Your task to perform on an android device: allow cookies in the chrome app Image 0: 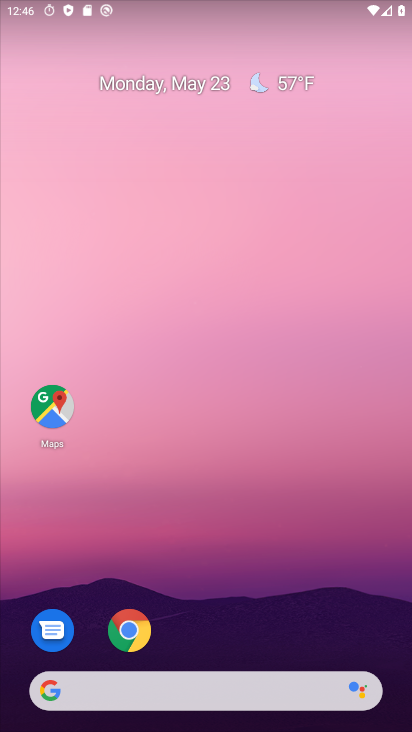
Step 0: drag from (247, 559) to (204, 13)
Your task to perform on an android device: allow cookies in the chrome app Image 1: 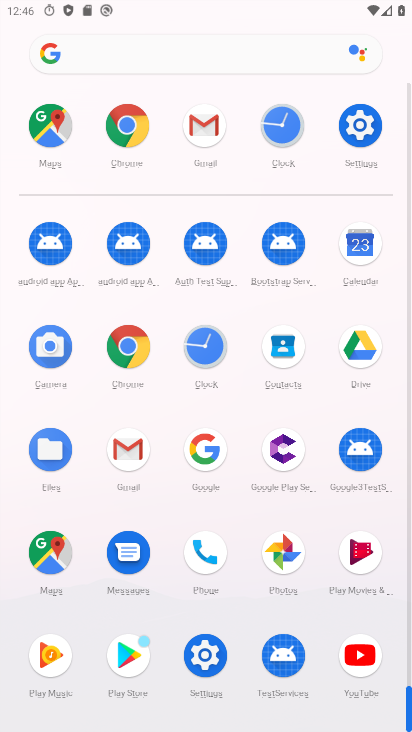
Step 1: drag from (14, 561) to (16, 240)
Your task to perform on an android device: allow cookies in the chrome app Image 2: 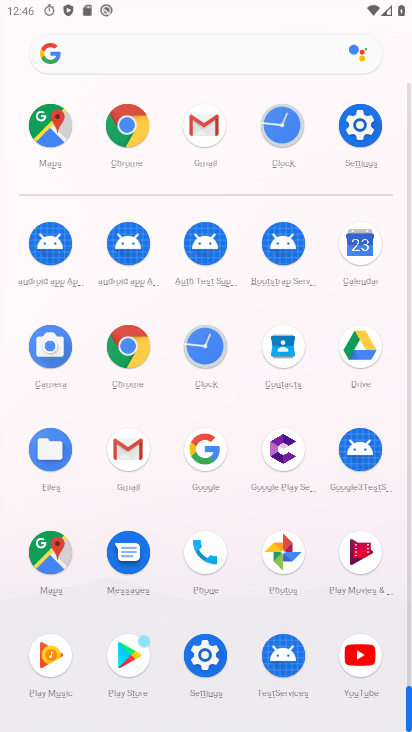
Step 2: click (122, 123)
Your task to perform on an android device: allow cookies in the chrome app Image 3: 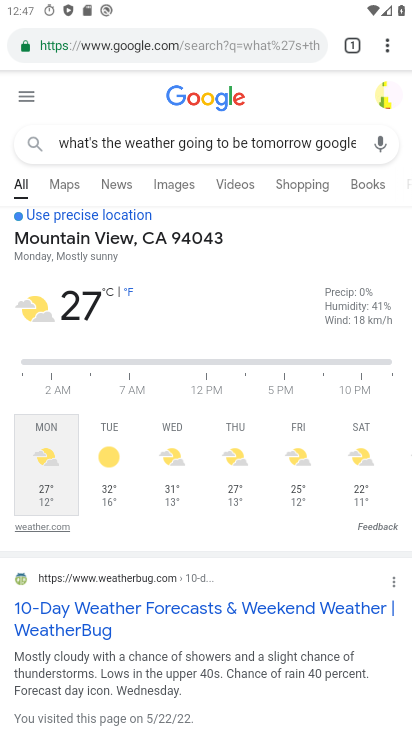
Step 3: drag from (390, 46) to (217, 502)
Your task to perform on an android device: allow cookies in the chrome app Image 4: 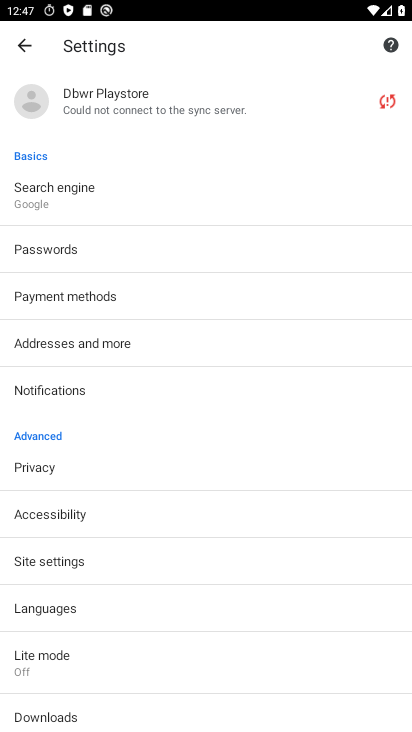
Step 4: drag from (125, 598) to (190, 167)
Your task to perform on an android device: allow cookies in the chrome app Image 5: 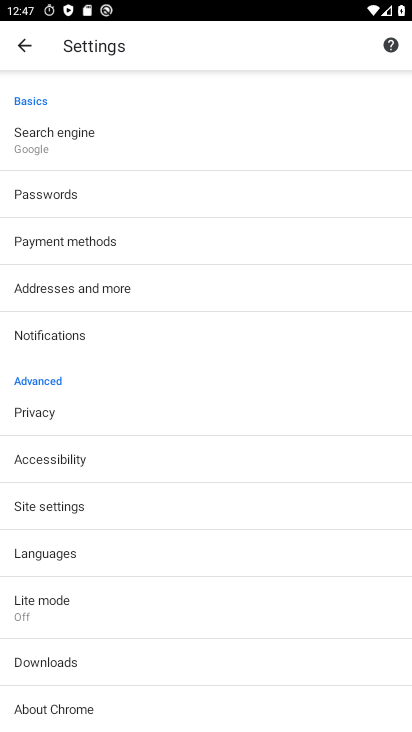
Step 5: click (109, 507)
Your task to perform on an android device: allow cookies in the chrome app Image 6: 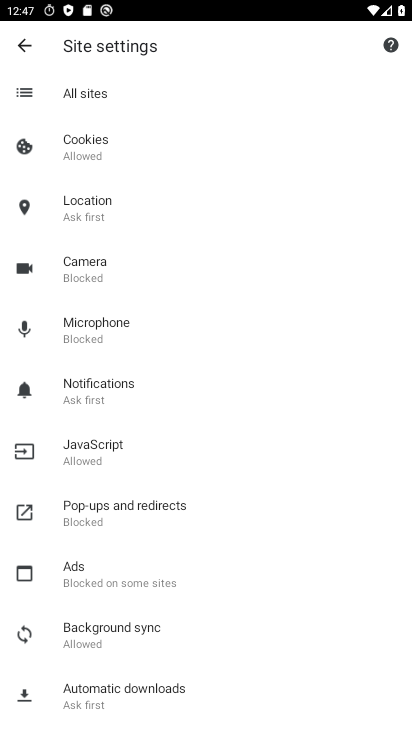
Step 6: click (136, 440)
Your task to perform on an android device: allow cookies in the chrome app Image 7: 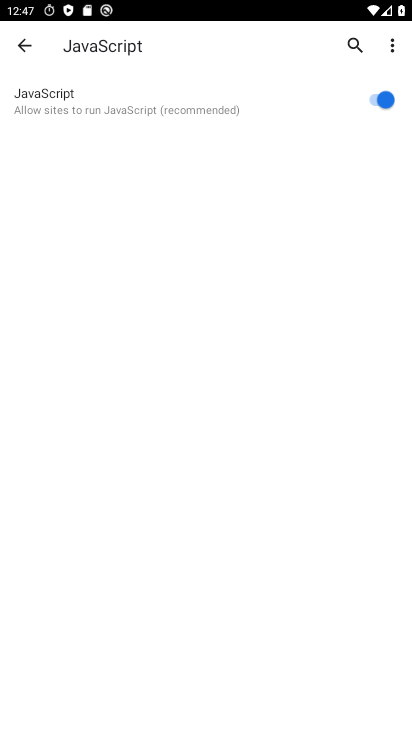
Step 7: click (25, 46)
Your task to perform on an android device: allow cookies in the chrome app Image 8: 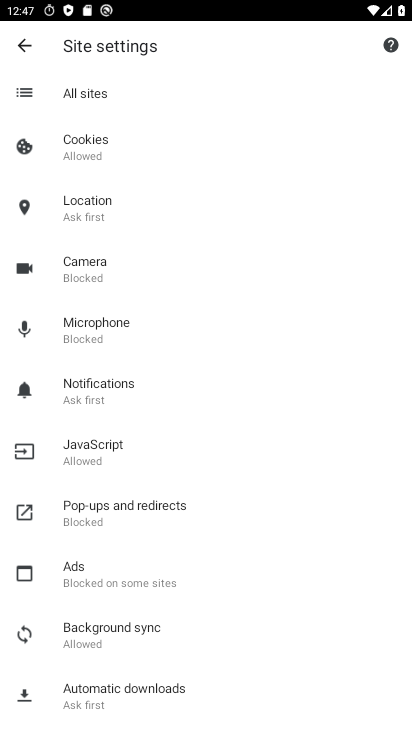
Step 8: drag from (215, 603) to (240, 165)
Your task to perform on an android device: allow cookies in the chrome app Image 9: 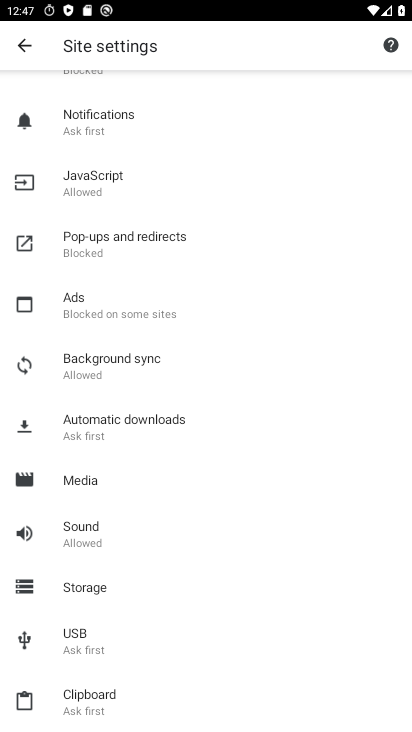
Step 9: drag from (207, 230) to (226, 488)
Your task to perform on an android device: allow cookies in the chrome app Image 10: 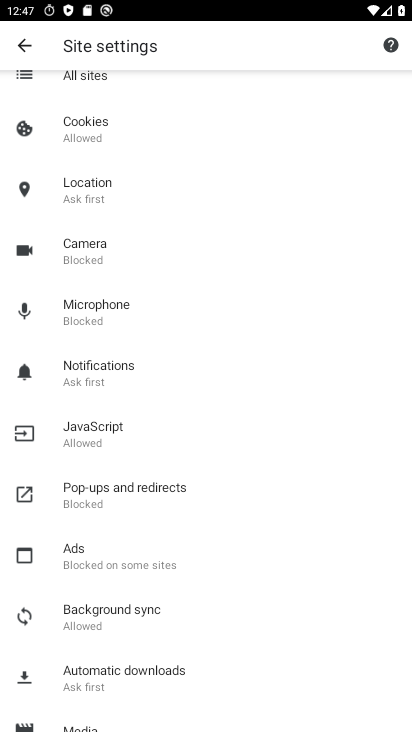
Step 10: click (137, 128)
Your task to perform on an android device: allow cookies in the chrome app Image 11: 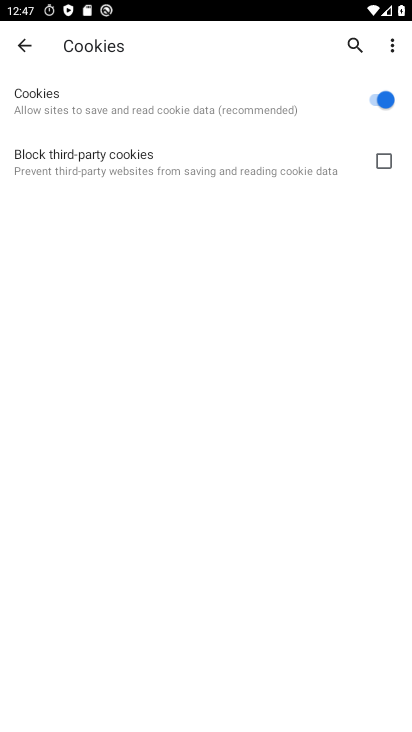
Step 11: task complete